Your task to perform on an android device: Show me recent news Image 0: 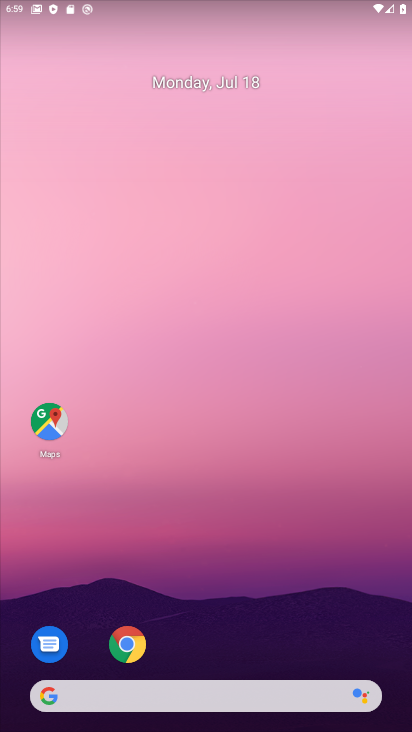
Step 0: drag from (266, 620) to (273, 332)
Your task to perform on an android device: Show me recent news Image 1: 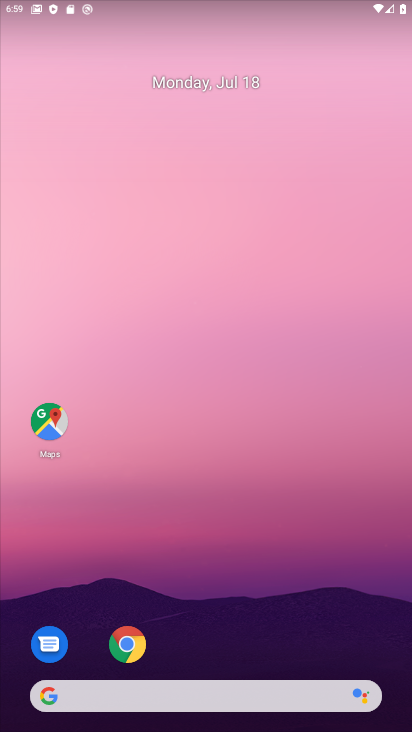
Step 1: drag from (326, 634) to (277, 0)
Your task to perform on an android device: Show me recent news Image 2: 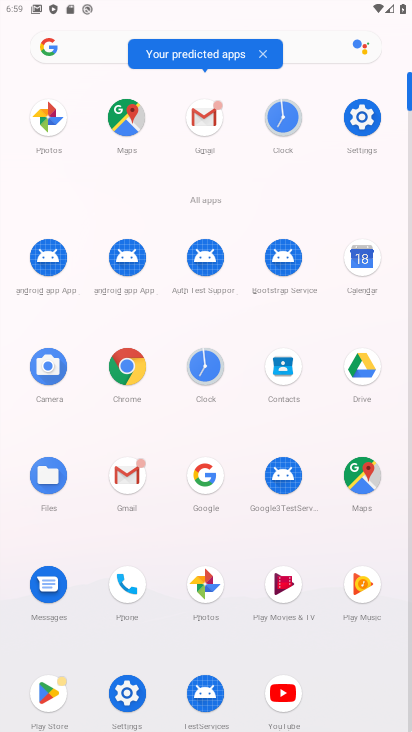
Step 2: click (199, 474)
Your task to perform on an android device: Show me recent news Image 3: 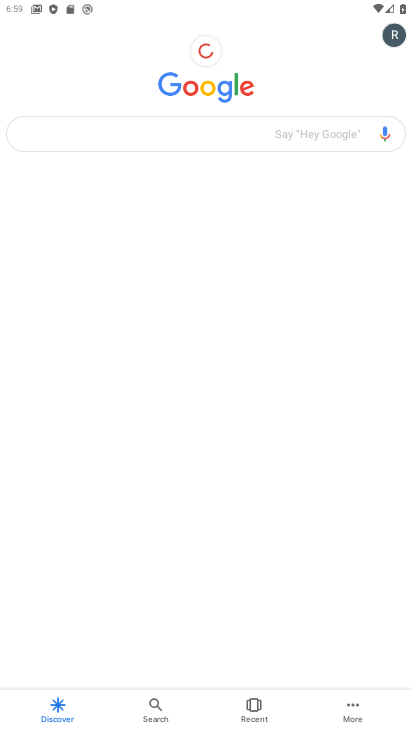
Step 3: click (159, 141)
Your task to perform on an android device: Show me recent news Image 4: 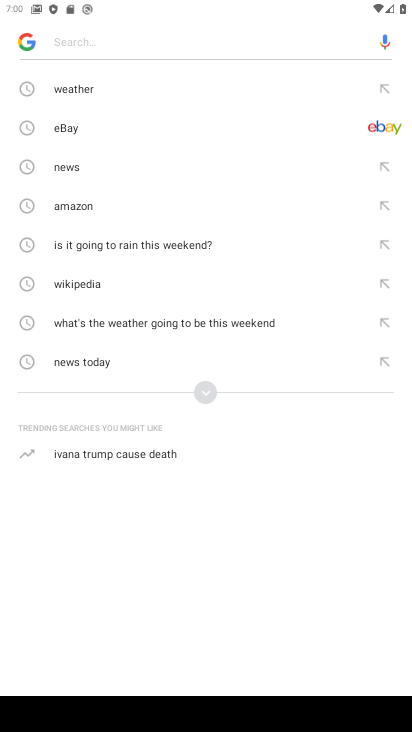
Step 4: type "recent news"
Your task to perform on an android device: Show me recent news Image 5: 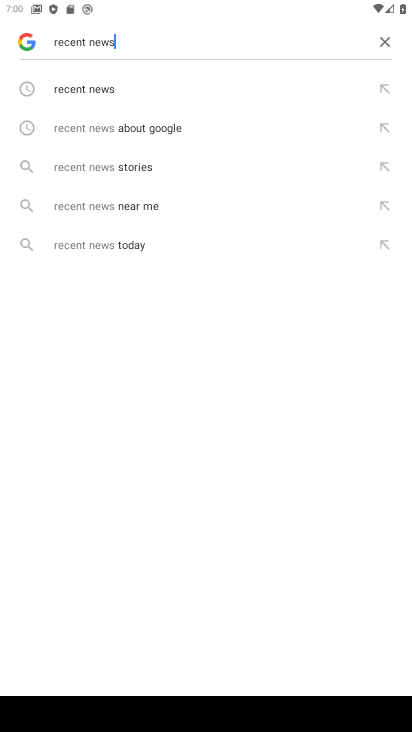
Step 5: click (94, 94)
Your task to perform on an android device: Show me recent news Image 6: 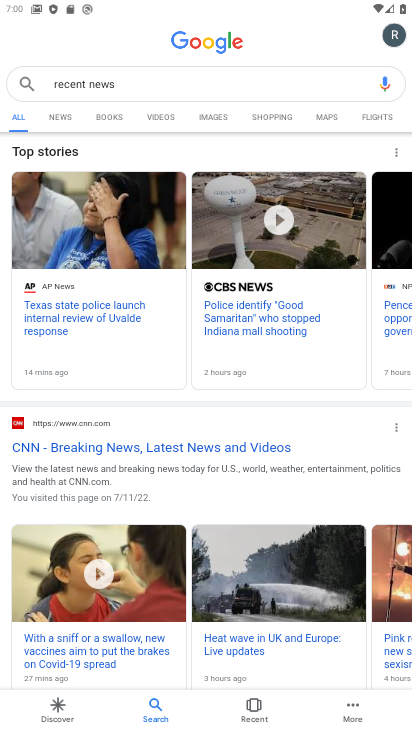
Step 6: task complete